Your task to perform on an android device: Open Chrome and go to settings Image 0: 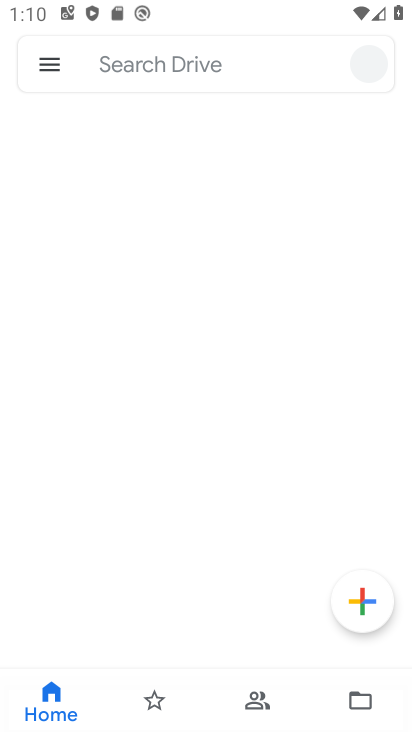
Step 0: drag from (187, 720) to (187, 383)
Your task to perform on an android device: Open Chrome and go to settings Image 1: 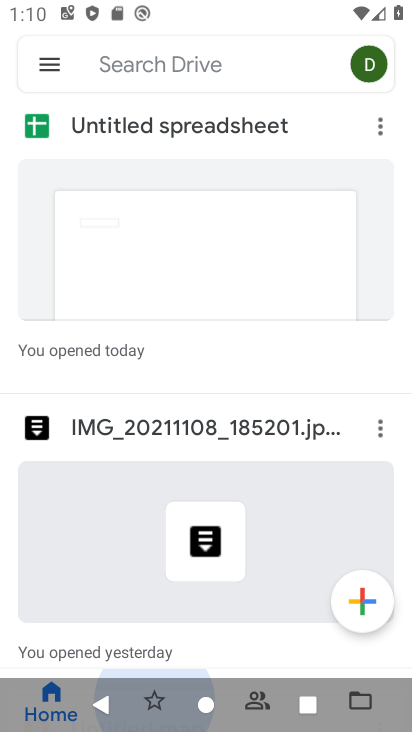
Step 1: drag from (187, 250) to (187, 136)
Your task to perform on an android device: Open Chrome and go to settings Image 2: 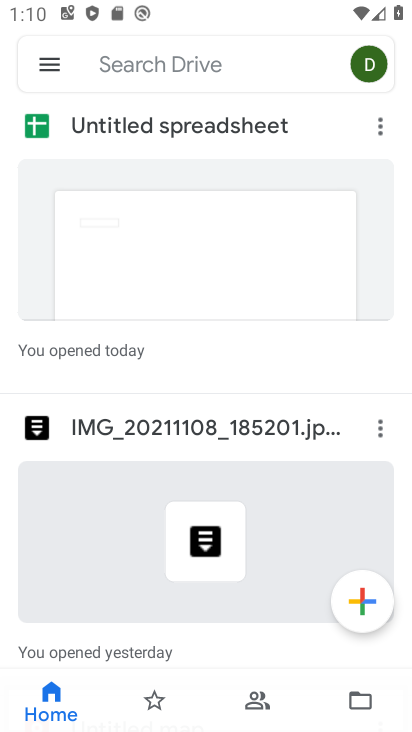
Step 2: press home button
Your task to perform on an android device: Open Chrome and go to settings Image 3: 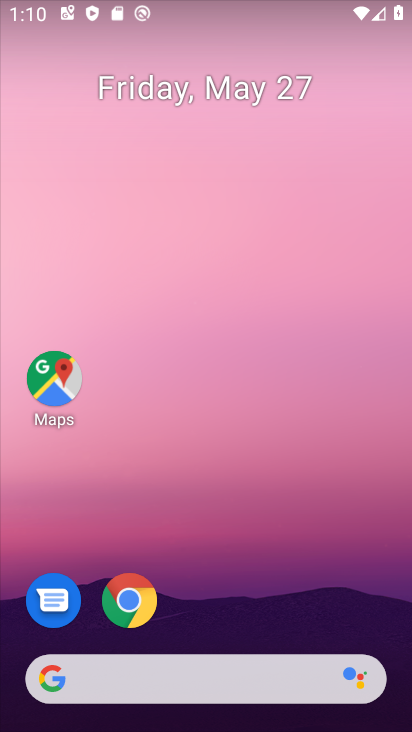
Step 3: click (126, 603)
Your task to perform on an android device: Open Chrome and go to settings Image 4: 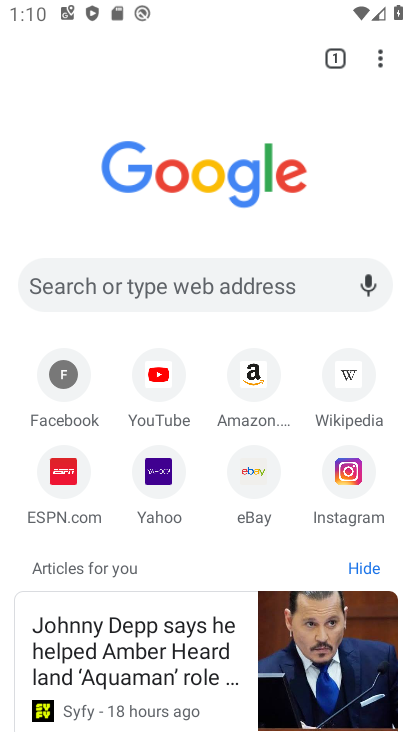
Step 4: click (380, 62)
Your task to perform on an android device: Open Chrome and go to settings Image 5: 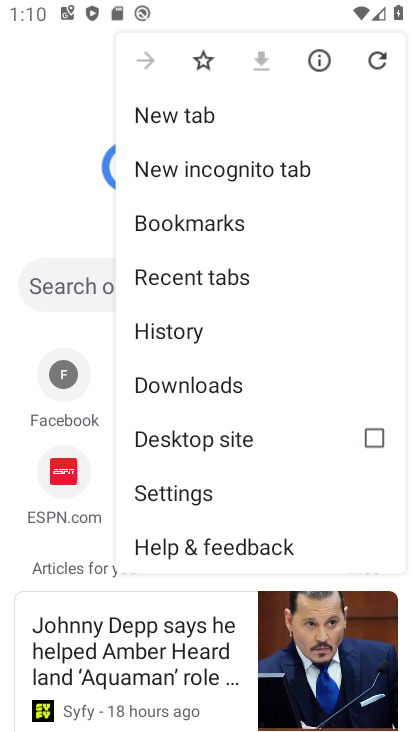
Step 5: click (188, 492)
Your task to perform on an android device: Open Chrome and go to settings Image 6: 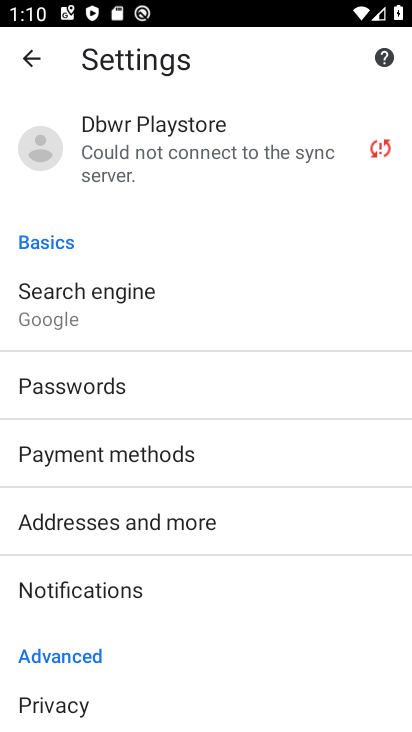
Step 6: task complete